Your task to perform on an android device: create a new album in the google photos Image 0: 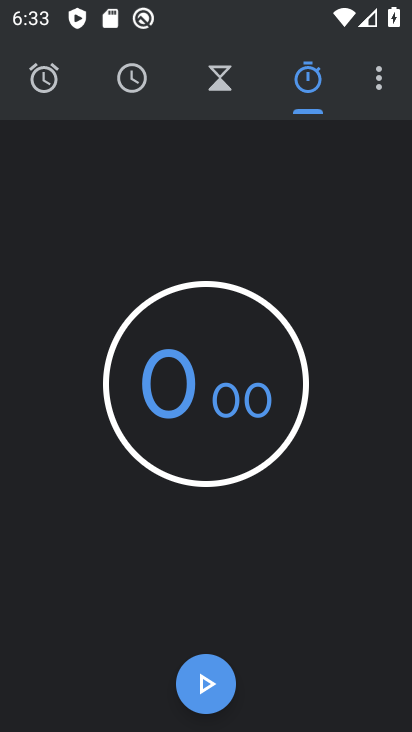
Step 0: press home button
Your task to perform on an android device: create a new album in the google photos Image 1: 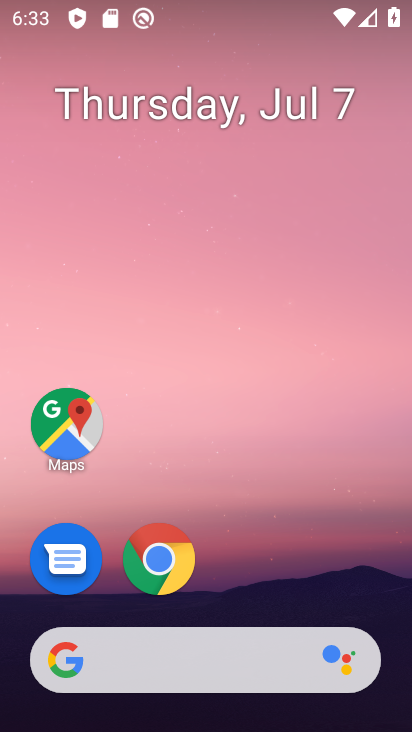
Step 1: drag from (188, 636) to (293, 155)
Your task to perform on an android device: create a new album in the google photos Image 2: 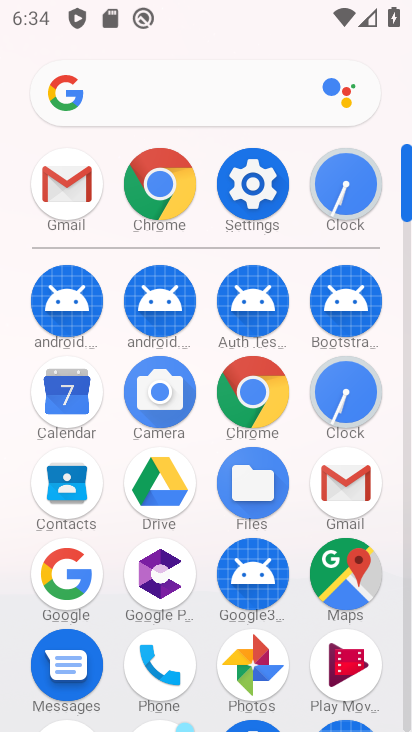
Step 2: click (241, 658)
Your task to perform on an android device: create a new album in the google photos Image 3: 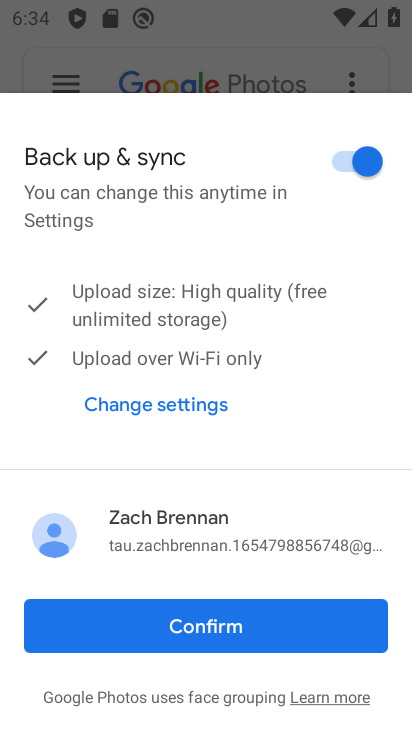
Step 3: click (260, 624)
Your task to perform on an android device: create a new album in the google photos Image 4: 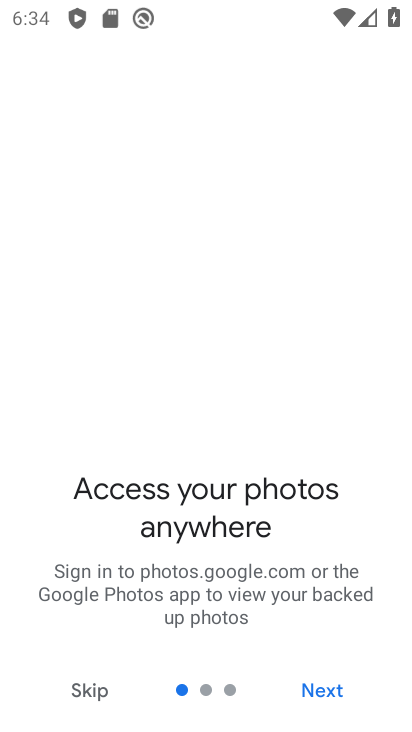
Step 4: click (308, 697)
Your task to perform on an android device: create a new album in the google photos Image 5: 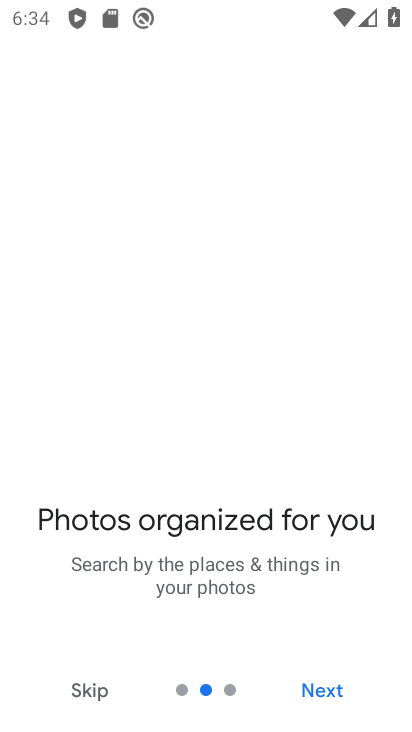
Step 5: click (308, 697)
Your task to perform on an android device: create a new album in the google photos Image 6: 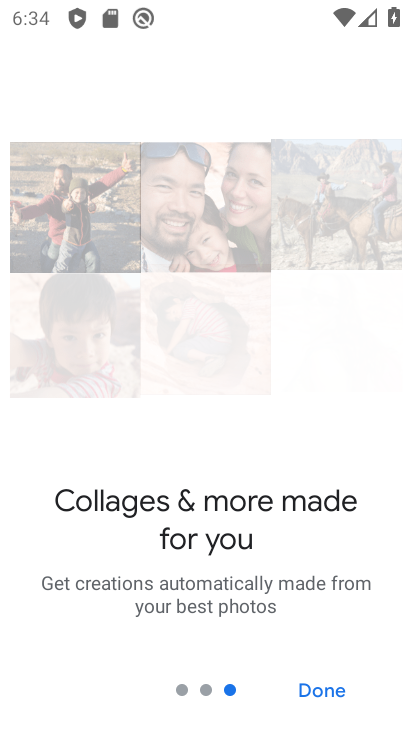
Step 6: click (308, 697)
Your task to perform on an android device: create a new album in the google photos Image 7: 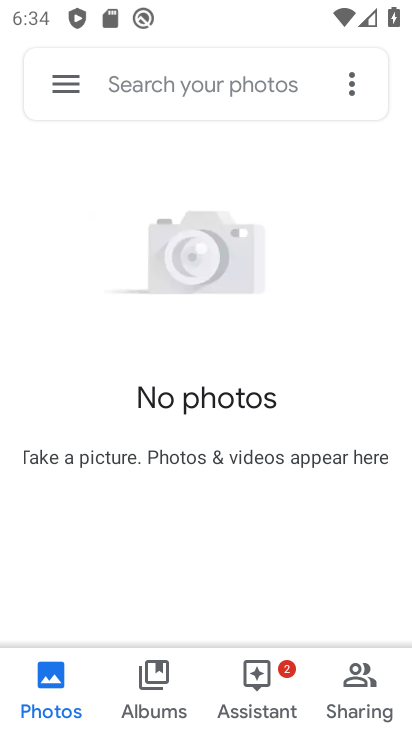
Step 7: click (155, 702)
Your task to perform on an android device: create a new album in the google photos Image 8: 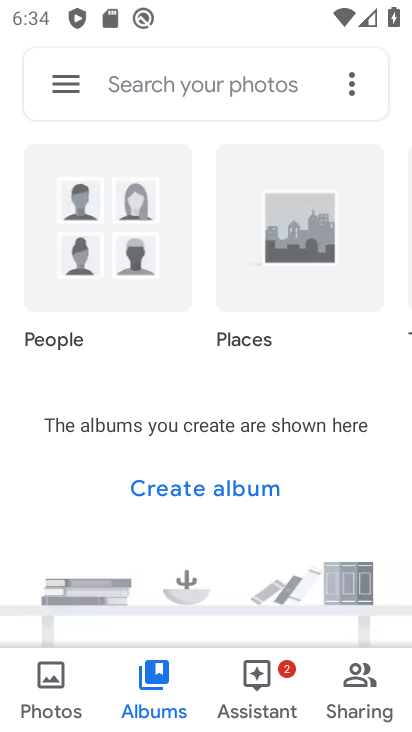
Step 8: click (227, 485)
Your task to perform on an android device: create a new album in the google photos Image 9: 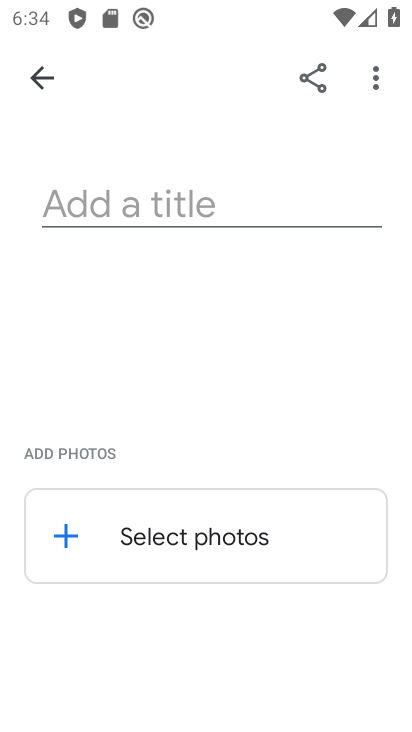
Step 9: click (278, 202)
Your task to perform on an android device: create a new album in the google photos Image 10: 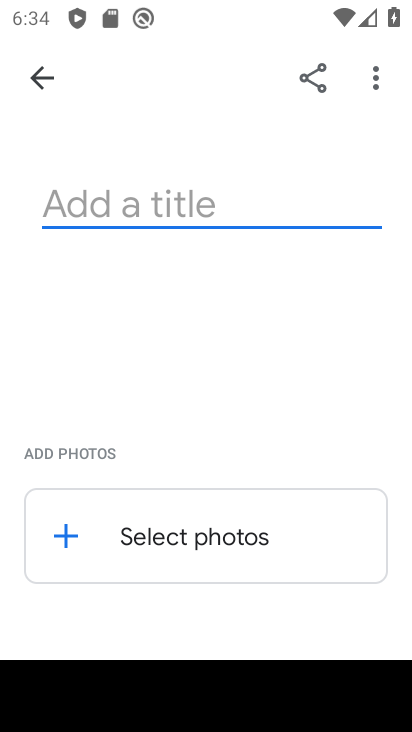
Step 10: type "jkdshfeshf"
Your task to perform on an android device: create a new album in the google photos Image 11: 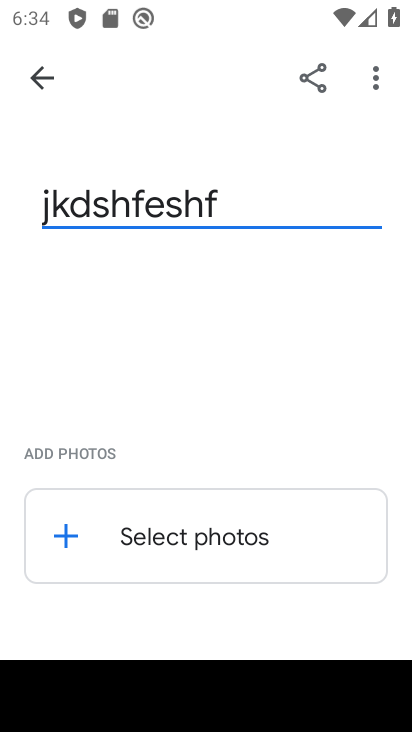
Step 11: click (73, 535)
Your task to perform on an android device: create a new album in the google photos Image 12: 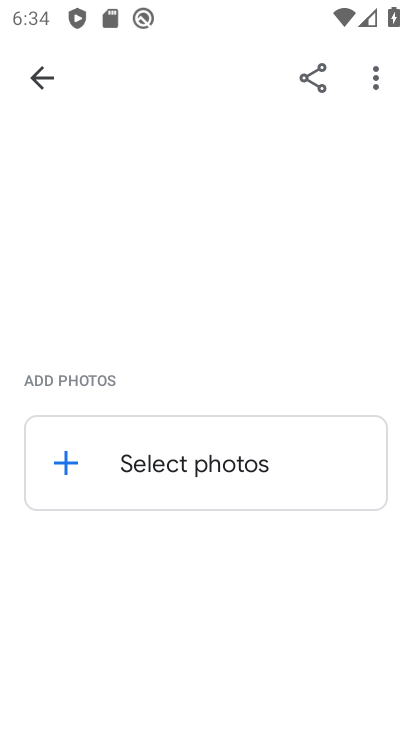
Step 12: click (75, 452)
Your task to perform on an android device: create a new album in the google photos Image 13: 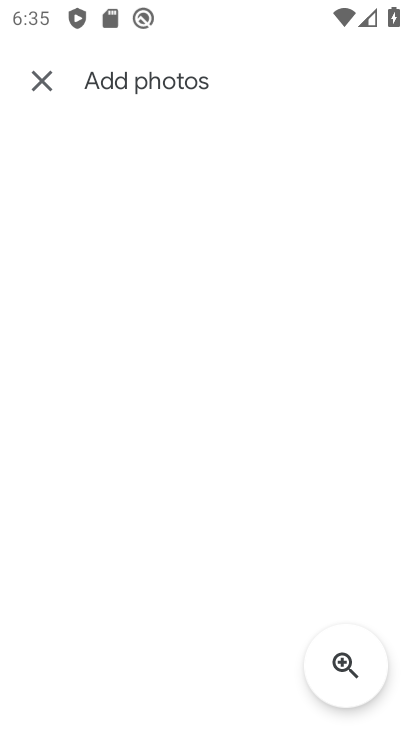
Step 13: task complete